Your task to perform on an android device: turn on improve location accuracy Image 0: 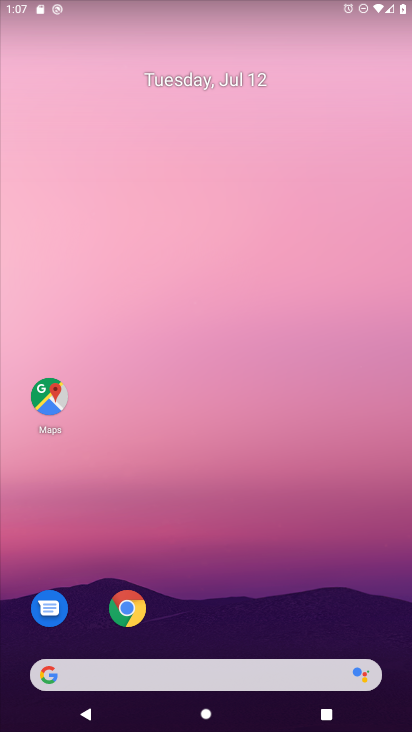
Step 0: drag from (186, 661) to (135, 203)
Your task to perform on an android device: turn on improve location accuracy Image 1: 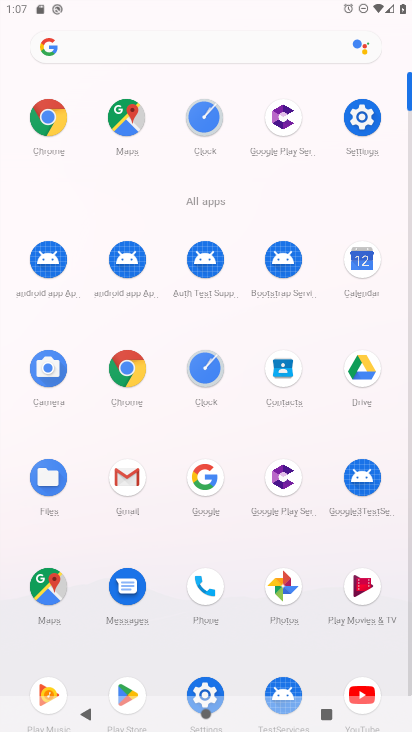
Step 1: click (362, 124)
Your task to perform on an android device: turn on improve location accuracy Image 2: 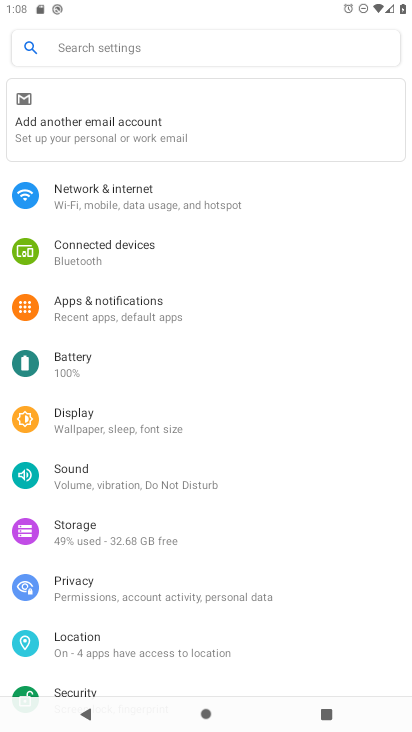
Step 2: click (100, 640)
Your task to perform on an android device: turn on improve location accuracy Image 3: 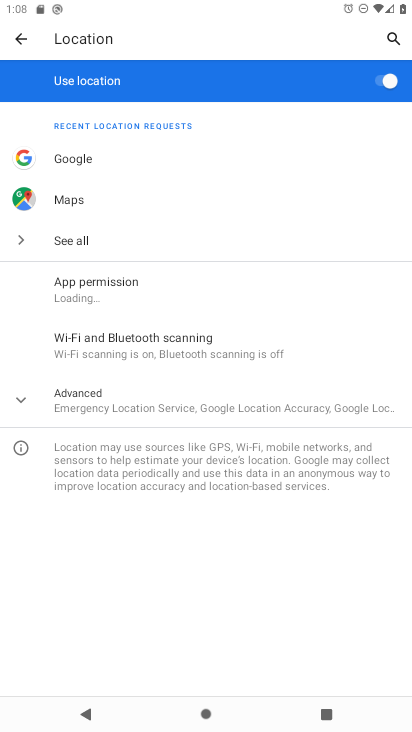
Step 3: click (82, 401)
Your task to perform on an android device: turn on improve location accuracy Image 4: 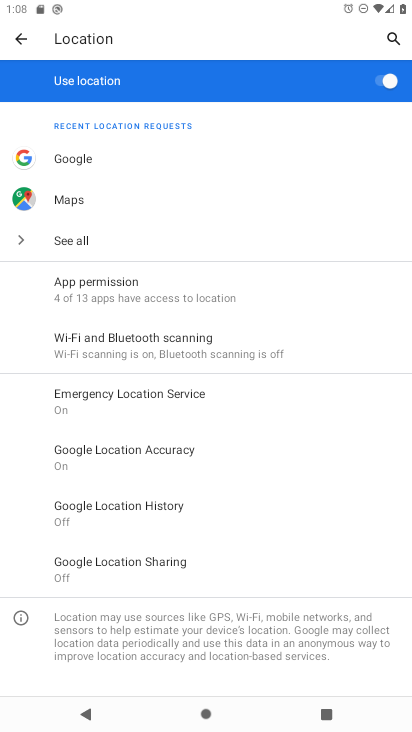
Step 4: click (106, 458)
Your task to perform on an android device: turn on improve location accuracy Image 5: 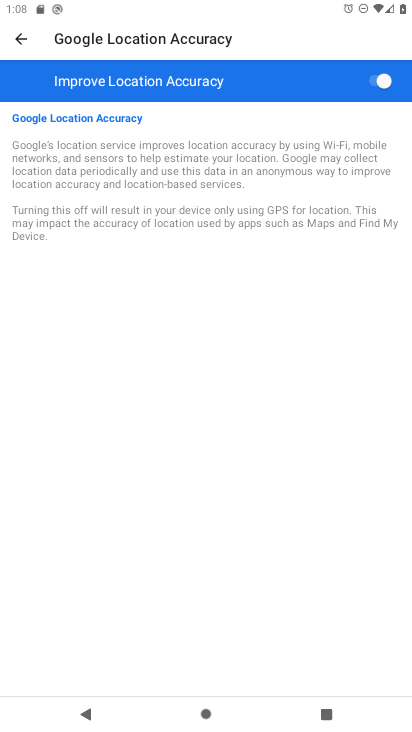
Step 5: task complete